Your task to perform on an android device: What is the news today? Image 0: 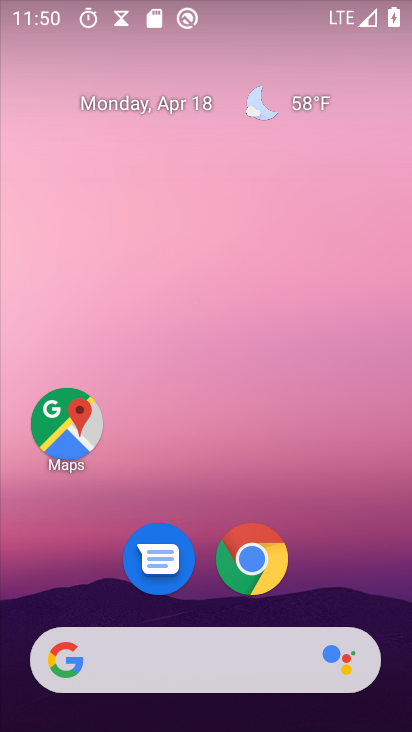
Step 0: click (256, 558)
Your task to perform on an android device: What is the news today? Image 1: 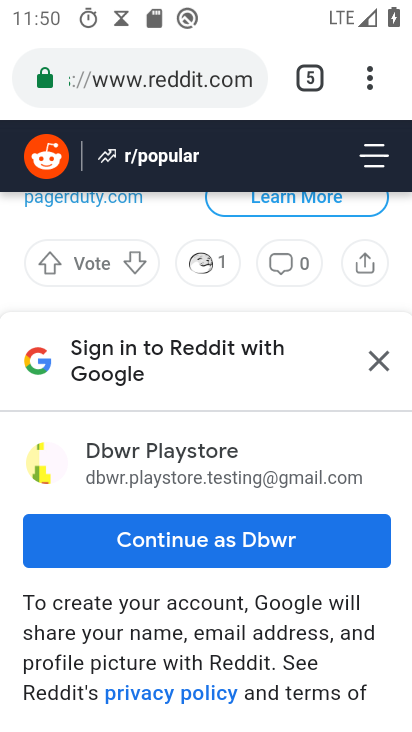
Step 1: click (304, 66)
Your task to perform on an android device: What is the news today? Image 2: 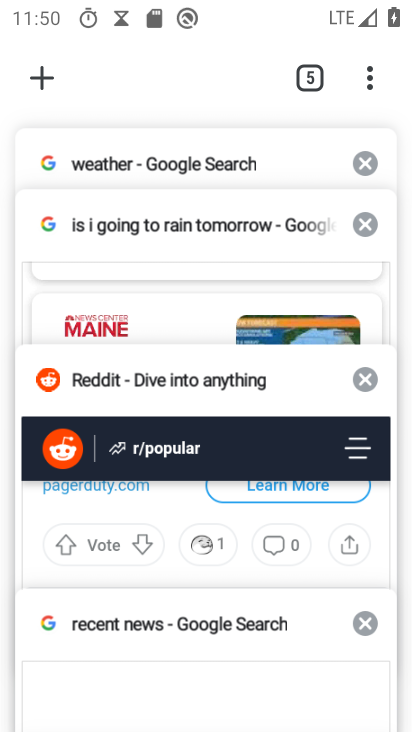
Step 2: click (51, 63)
Your task to perform on an android device: What is the news today? Image 3: 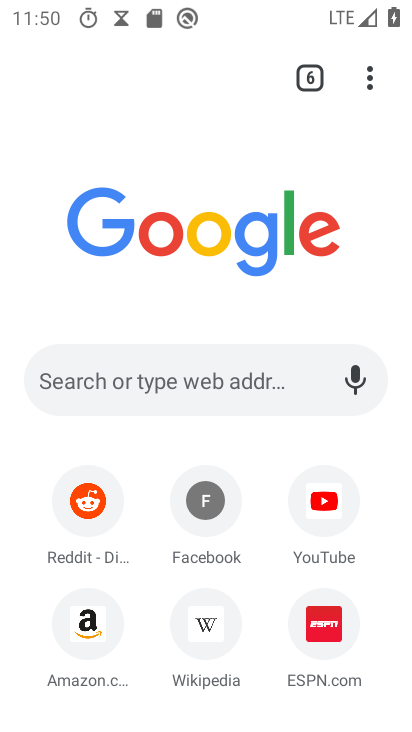
Step 3: click (125, 377)
Your task to perform on an android device: What is the news today? Image 4: 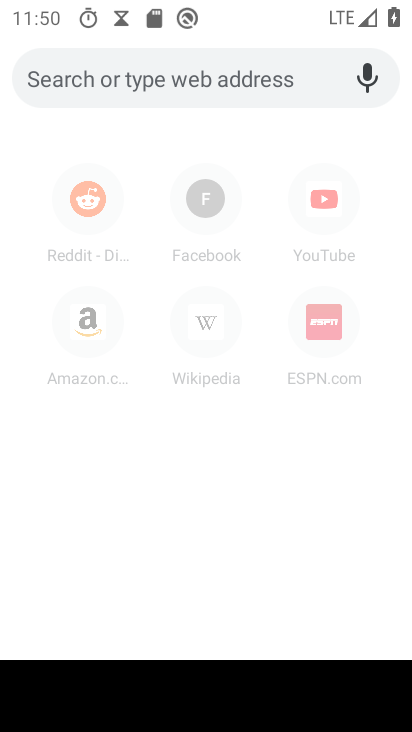
Step 4: type "news today"
Your task to perform on an android device: What is the news today? Image 5: 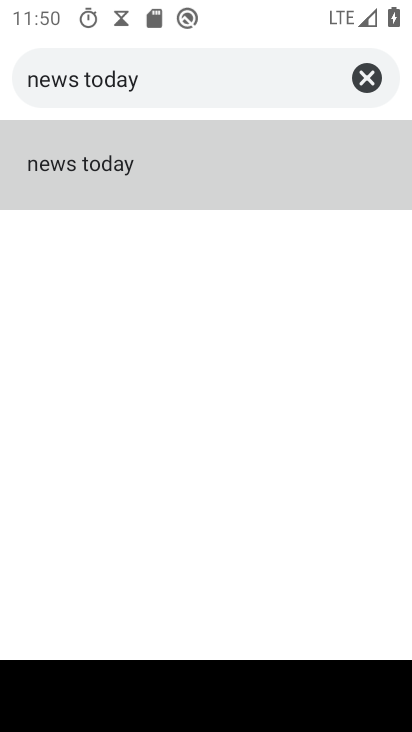
Step 5: click (92, 150)
Your task to perform on an android device: What is the news today? Image 6: 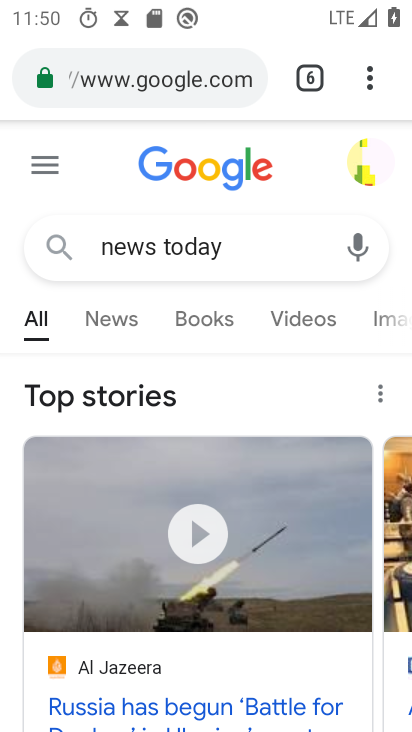
Step 6: task complete